Your task to perform on an android device: Go to Yahoo.com Image 0: 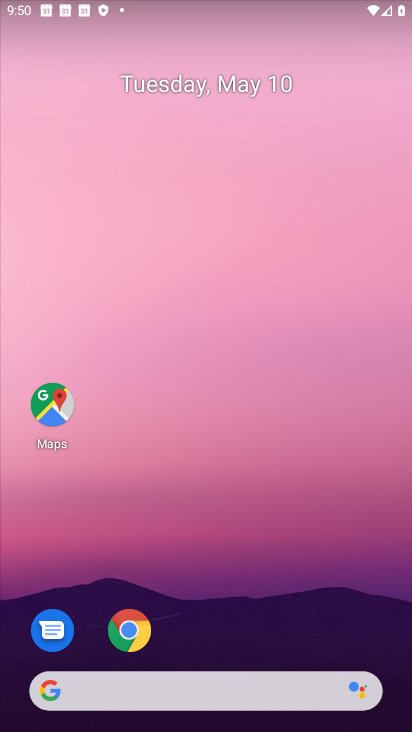
Step 0: click (217, 698)
Your task to perform on an android device: Go to Yahoo.com Image 1: 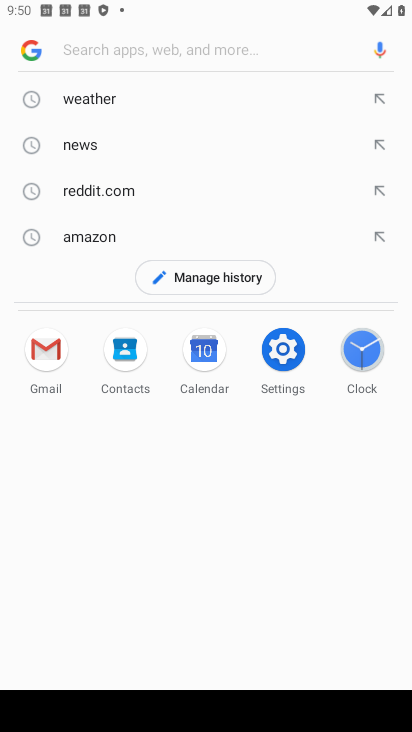
Step 1: type "yahoo.com"
Your task to perform on an android device: Go to Yahoo.com Image 2: 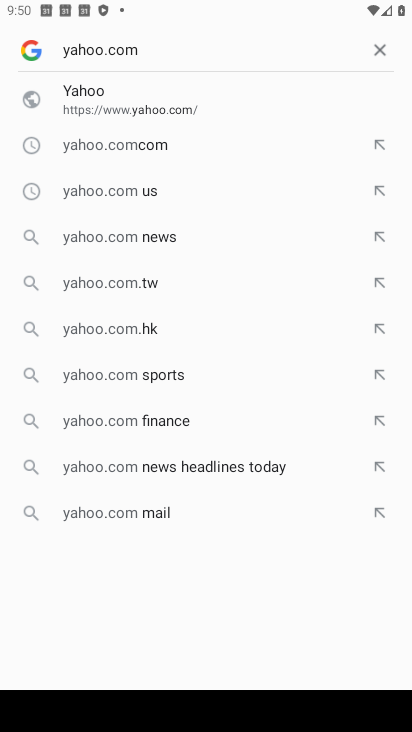
Step 2: click (227, 74)
Your task to perform on an android device: Go to Yahoo.com Image 3: 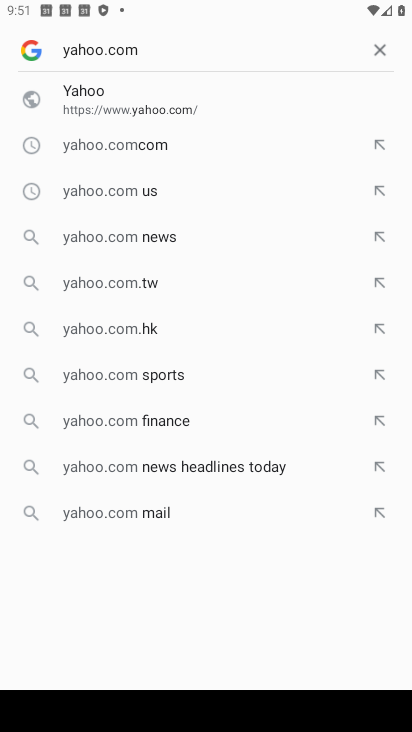
Step 3: click (160, 106)
Your task to perform on an android device: Go to Yahoo.com Image 4: 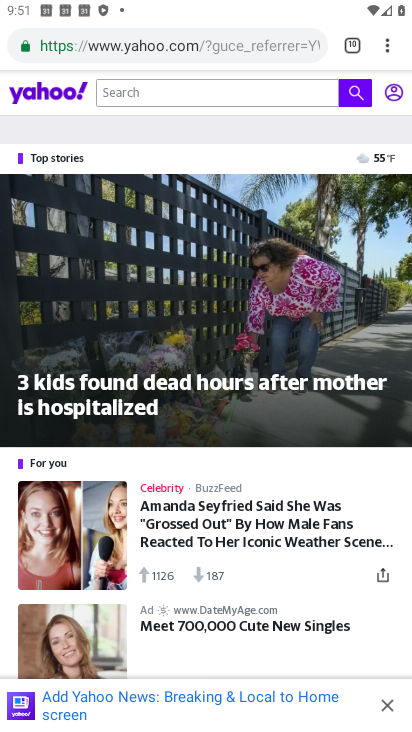
Step 4: task complete